Your task to perform on an android device: Go to network settings Image 0: 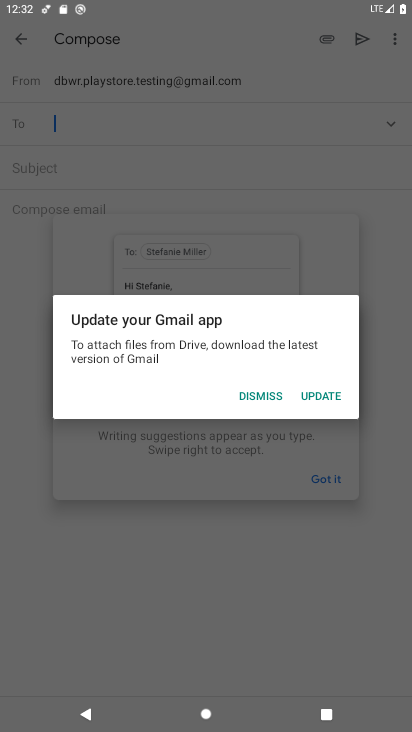
Step 0: press home button
Your task to perform on an android device: Go to network settings Image 1: 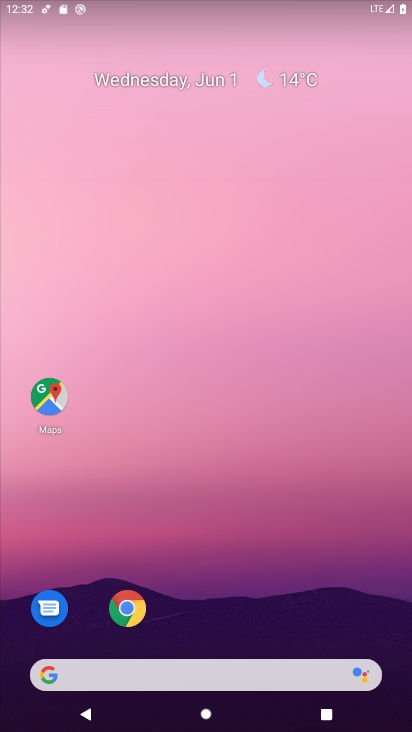
Step 1: drag from (262, 624) to (297, 254)
Your task to perform on an android device: Go to network settings Image 2: 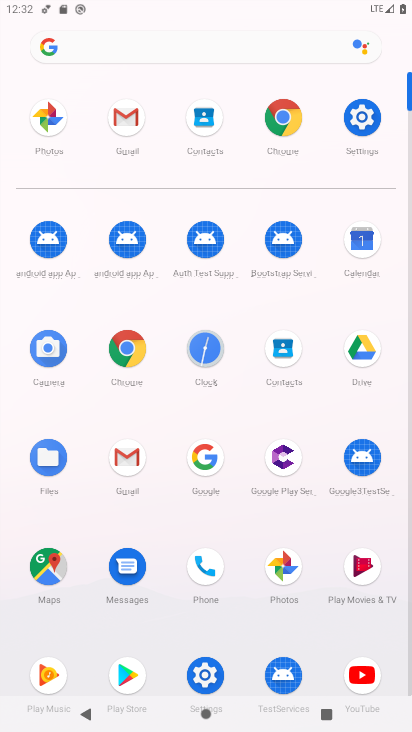
Step 2: click (369, 123)
Your task to perform on an android device: Go to network settings Image 3: 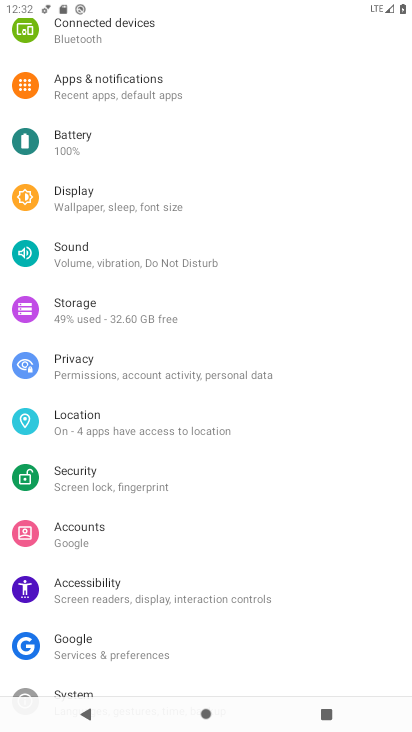
Step 3: drag from (149, 125) to (120, 405)
Your task to perform on an android device: Go to network settings Image 4: 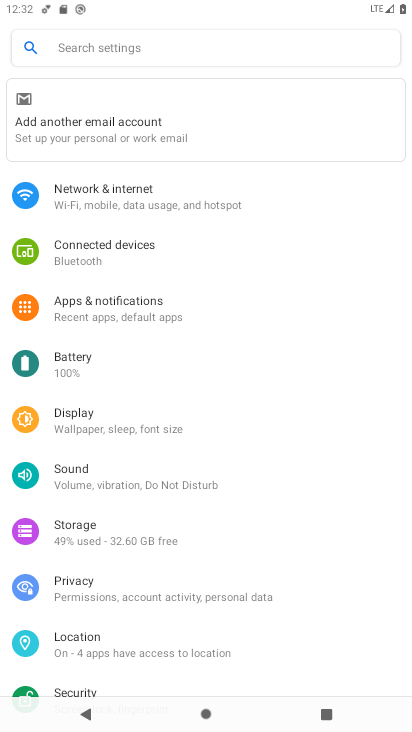
Step 4: click (129, 208)
Your task to perform on an android device: Go to network settings Image 5: 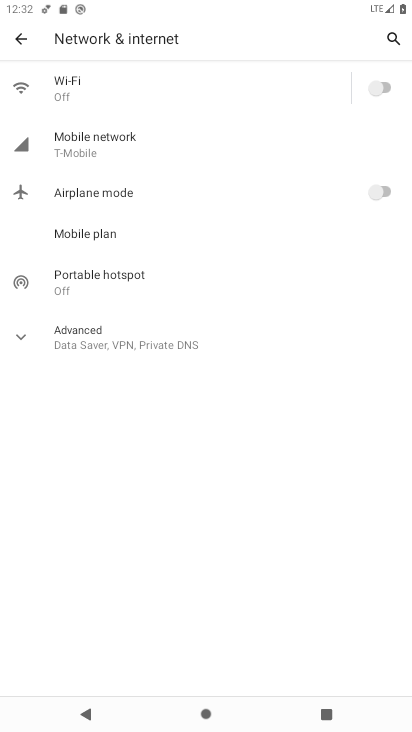
Step 5: task complete